Your task to perform on an android device: toggle priority inbox in the gmail app Image 0: 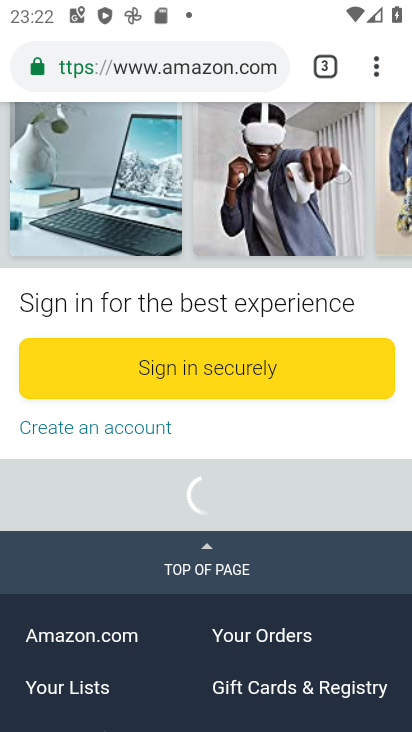
Step 0: drag from (267, 643) to (380, 712)
Your task to perform on an android device: toggle priority inbox in the gmail app Image 1: 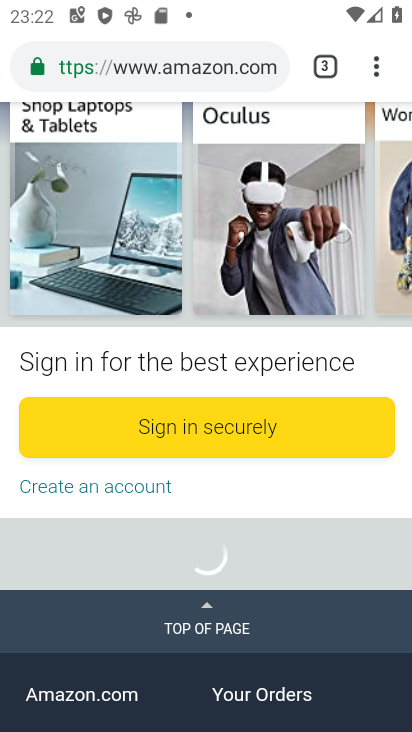
Step 1: press home button
Your task to perform on an android device: toggle priority inbox in the gmail app Image 2: 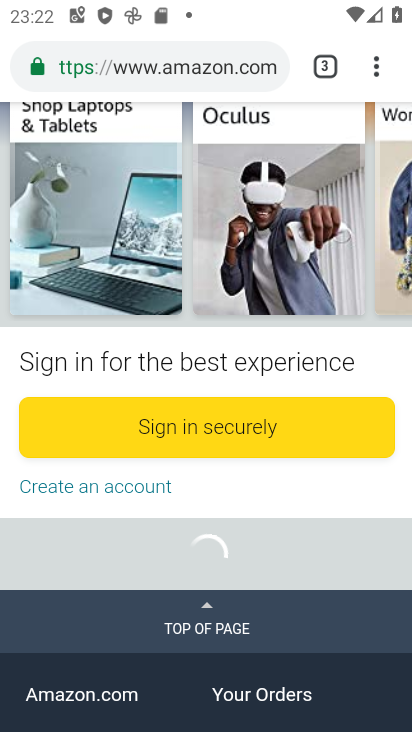
Step 2: drag from (248, 516) to (344, 5)
Your task to perform on an android device: toggle priority inbox in the gmail app Image 3: 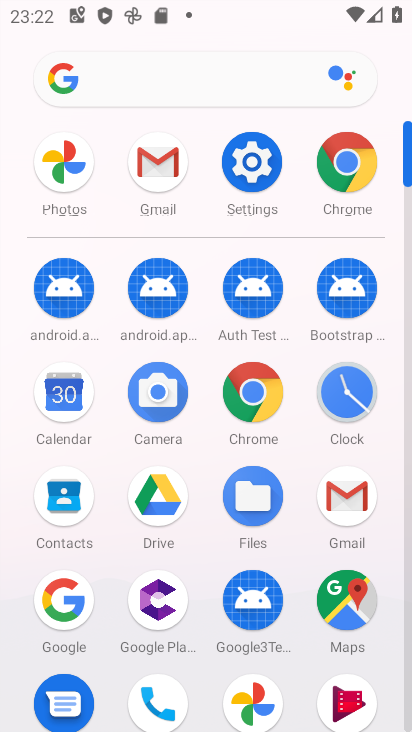
Step 3: click (344, 485)
Your task to perform on an android device: toggle priority inbox in the gmail app Image 4: 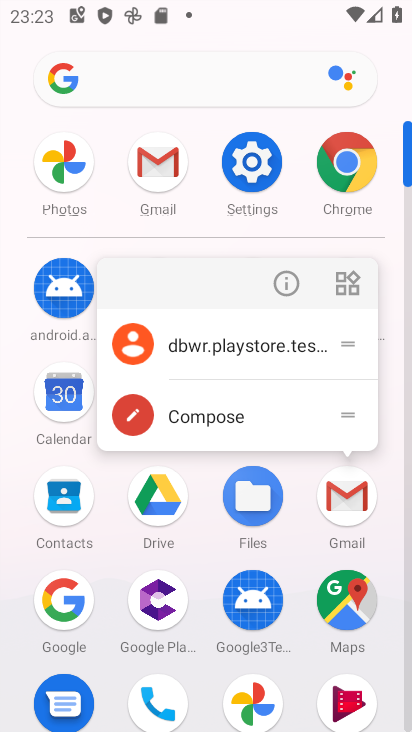
Step 4: click (277, 287)
Your task to perform on an android device: toggle priority inbox in the gmail app Image 5: 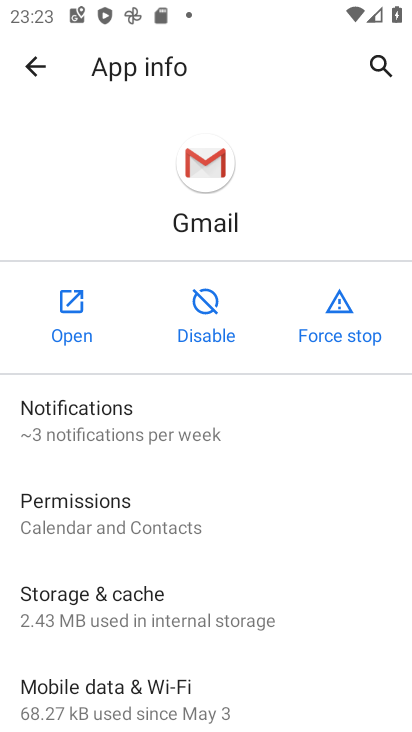
Step 5: click (75, 312)
Your task to perform on an android device: toggle priority inbox in the gmail app Image 6: 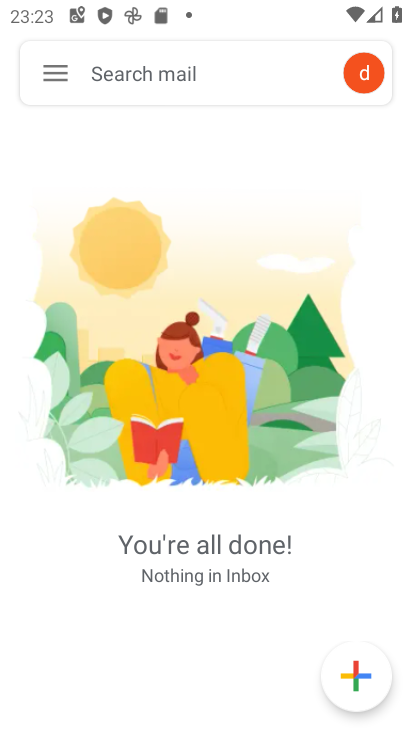
Step 6: click (53, 69)
Your task to perform on an android device: toggle priority inbox in the gmail app Image 7: 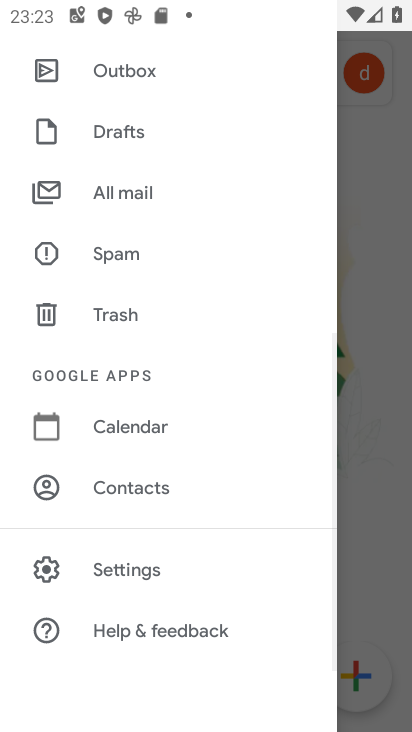
Step 7: click (129, 564)
Your task to perform on an android device: toggle priority inbox in the gmail app Image 8: 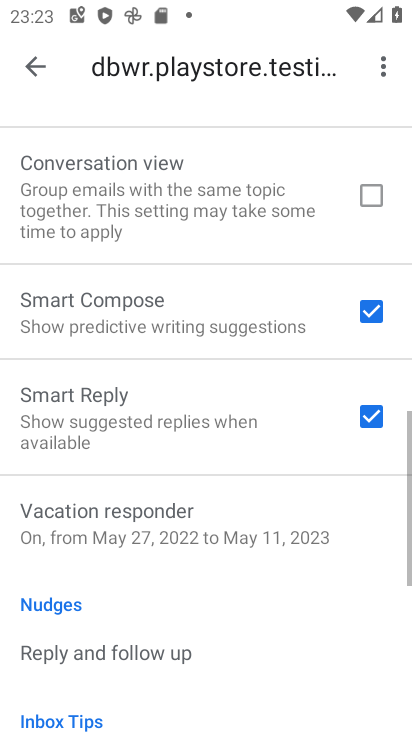
Step 8: drag from (149, 253) to (248, 731)
Your task to perform on an android device: toggle priority inbox in the gmail app Image 9: 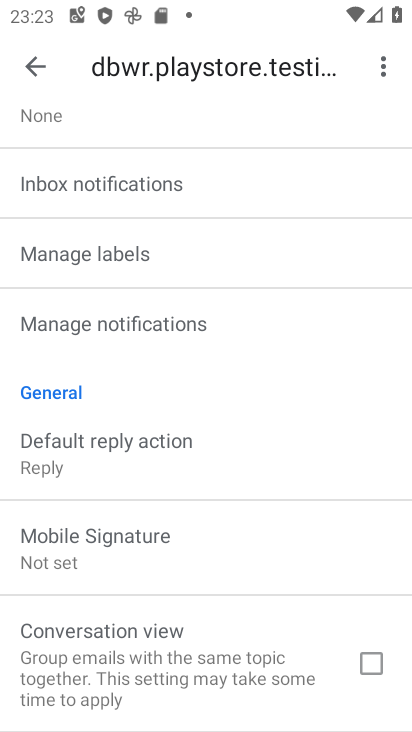
Step 9: drag from (185, 279) to (402, 709)
Your task to perform on an android device: toggle priority inbox in the gmail app Image 10: 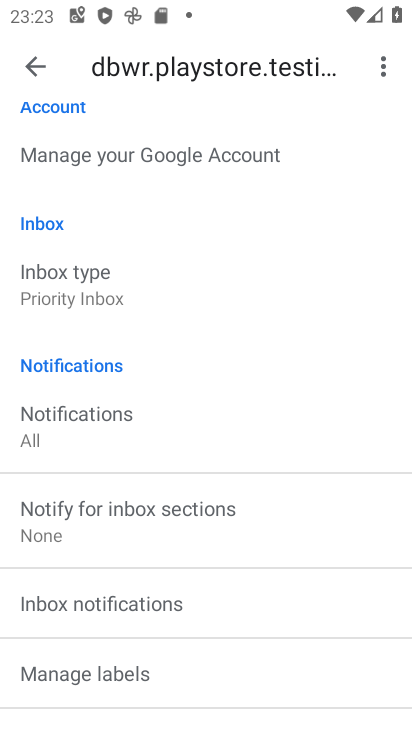
Step 10: click (91, 298)
Your task to perform on an android device: toggle priority inbox in the gmail app Image 11: 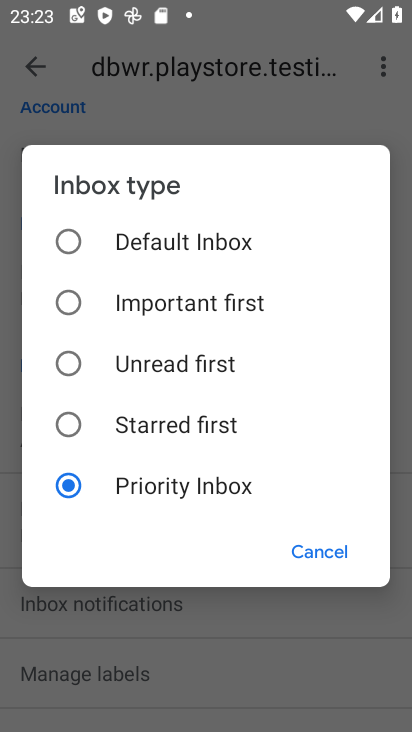
Step 11: task complete